Your task to perform on an android device: Open Google Chrome and click the shortcut for Amazon.com Image 0: 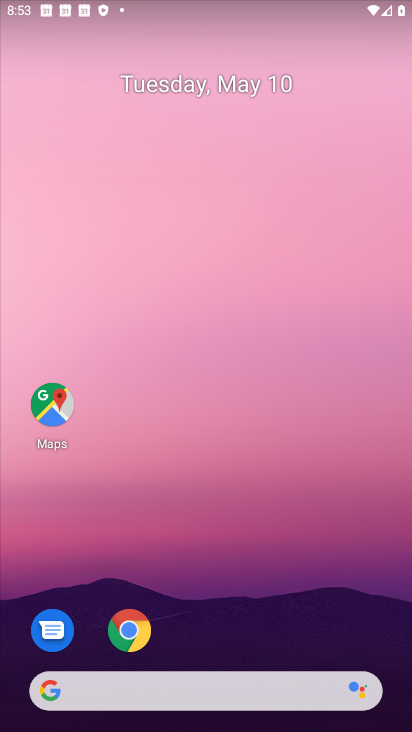
Step 0: click (134, 631)
Your task to perform on an android device: Open Google Chrome and click the shortcut for Amazon.com Image 1: 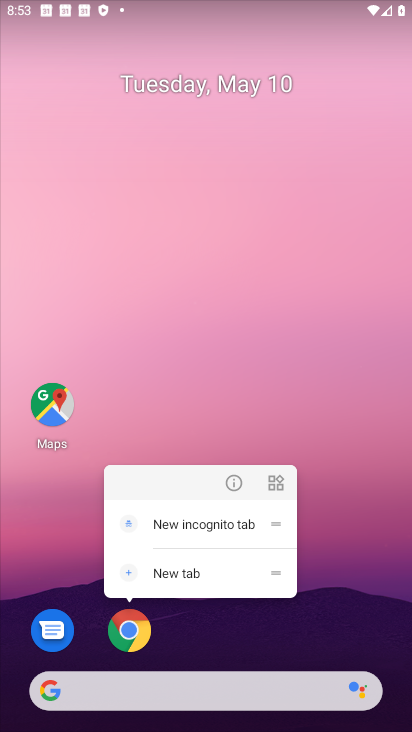
Step 1: click (133, 631)
Your task to perform on an android device: Open Google Chrome and click the shortcut for Amazon.com Image 2: 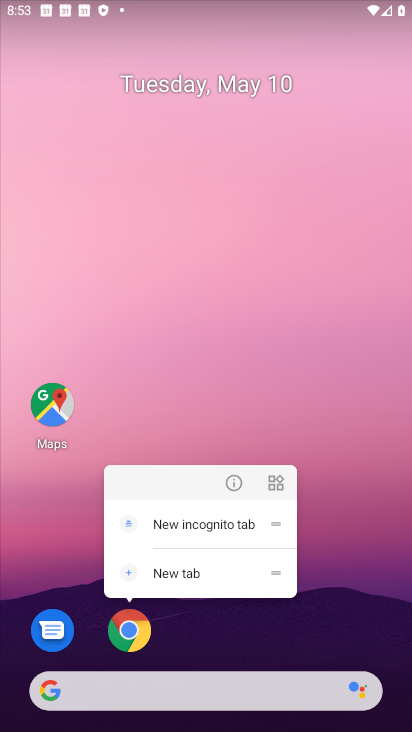
Step 2: click (133, 631)
Your task to perform on an android device: Open Google Chrome and click the shortcut for Amazon.com Image 3: 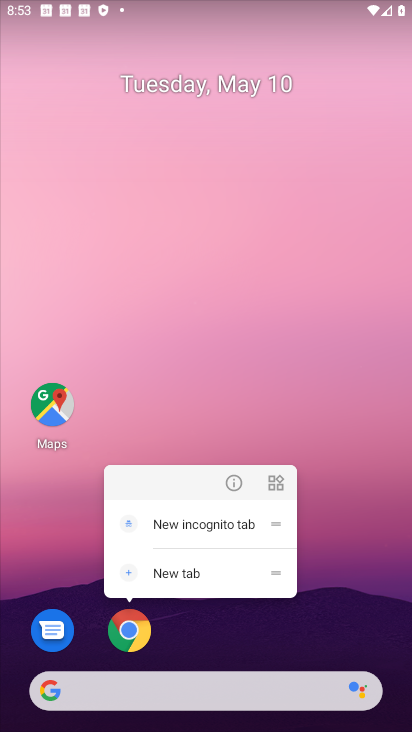
Step 3: click (133, 631)
Your task to perform on an android device: Open Google Chrome and click the shortcut for Amazon.com Image 4: 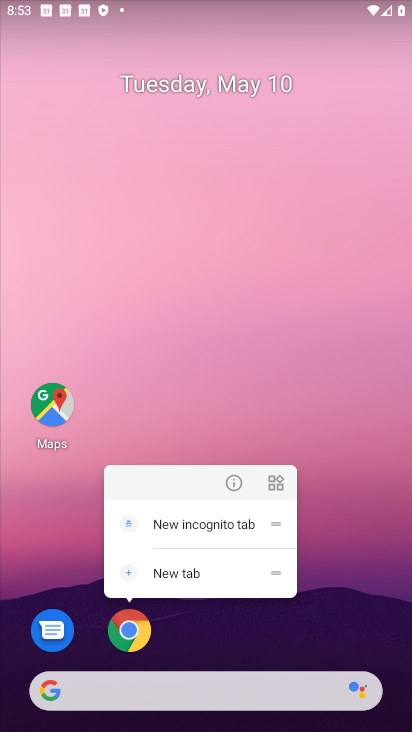
Step 4: click (133, 631)
Your task to perform on an android device: Open Google Chrome and click the shortcut for Amazon.com Image 5: 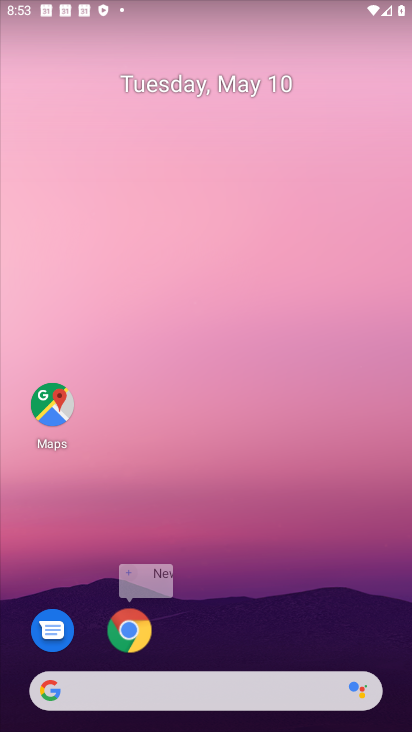
Step 5: click (133, 631)
Your task to perform on an android device: Open Google Chrome and click the shortcut for Amazon.com Image 6: 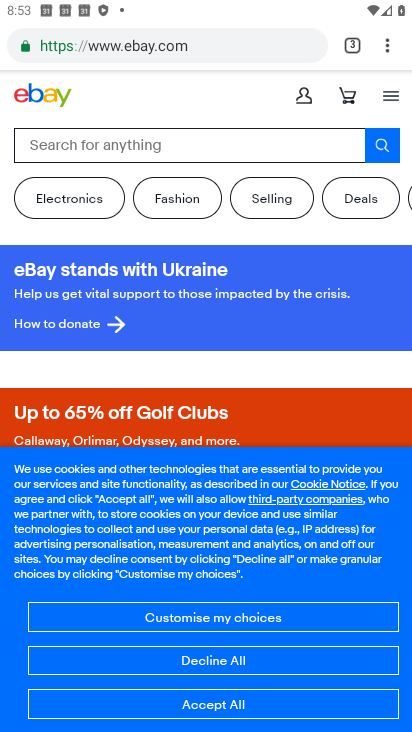
Step 6: click (386, 43)
Your task to perform on an android device: Open Google Chrome and click the shortcut for Amazon.com Image 7: 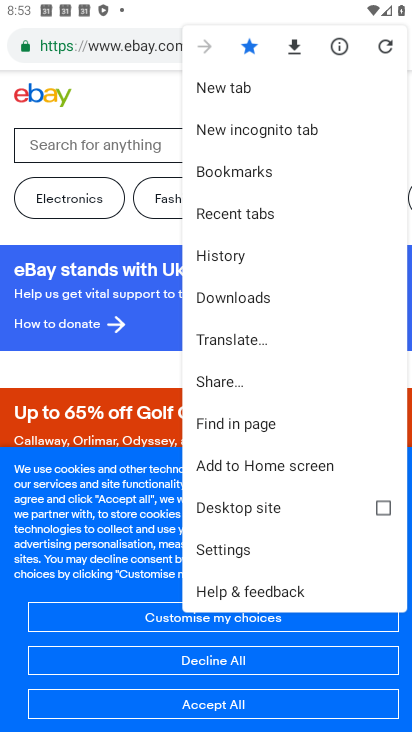
Step 7: click (230, 163)
Your task to perform on an android device: Open Google Chrome and click the shortcut for Amazon.com Image 8: 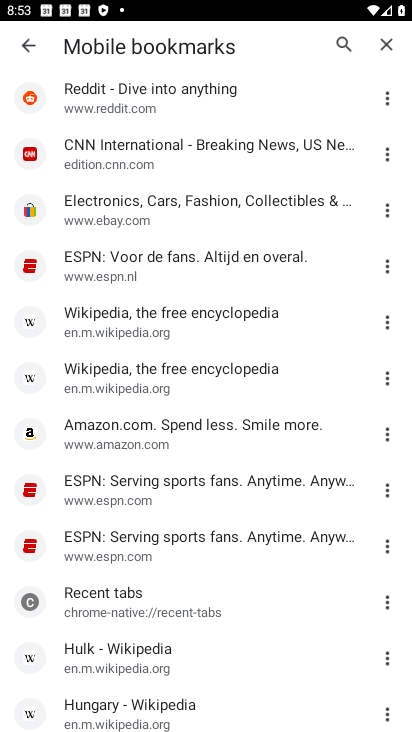
Step 8: drag from (179, 654) to (222, 2)
Your task to perform on an android device: Open Google Chrome and click the shortcut for Amazon.com Image 9: 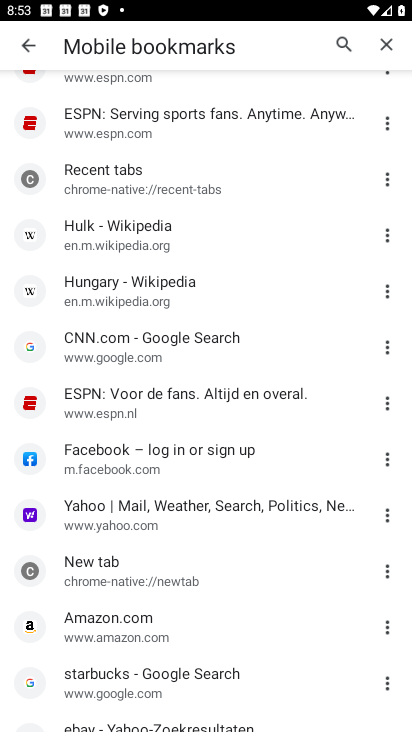
Step 9: click (151, 627)
Your task to perform on an android device: Open Google Chrome and click the shortcut for Amazon.com Image 10: 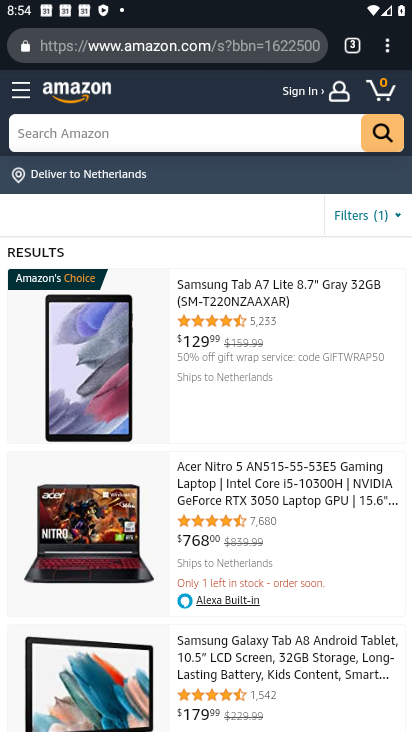
Step 10: task complete